Your task to perform on an android device: turn off picture-in-picture Image 0: 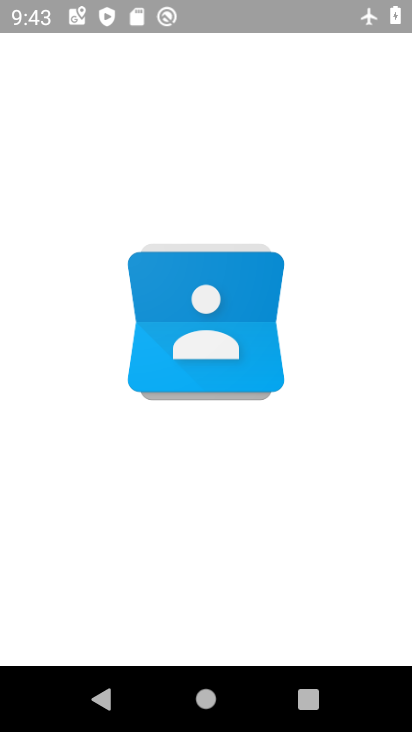
Step 0: drag from (265, 578) to (340, 96)
Your task to perform on an android device: turn off picture-in-picture Image 1: 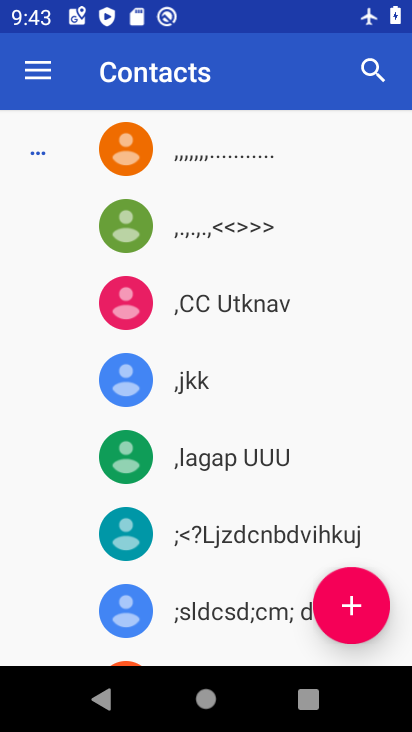
Step 1: press home button
Your task to perform on an android device: turn off picture-in-picture Image 2: 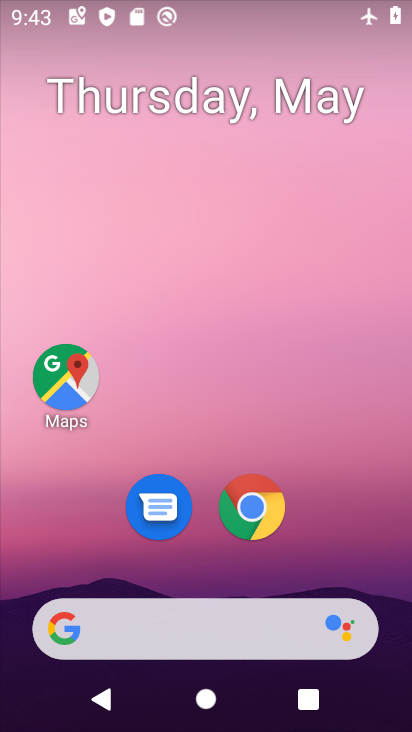
Step 2: drag from (185, 540) to (276, 83)
Your task to perform on an android device: turn off picture-in-picture Image 3: 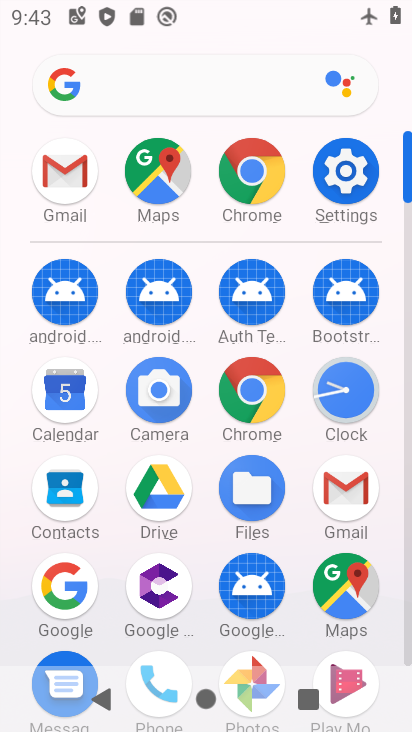
Step 3: click (352, 189)
Your task to perform on an android device: turn off picture-in-picture Image 4: 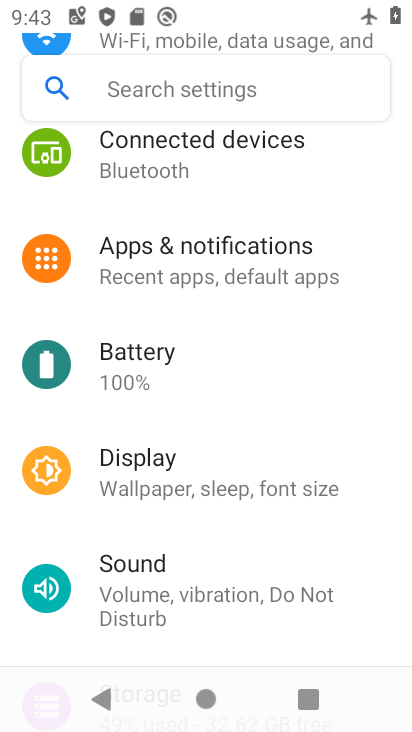
Step 4: drag from (281, 385) to (223, 687)
Your task to perform on an android device: turn off picture-in-picture Image 5: 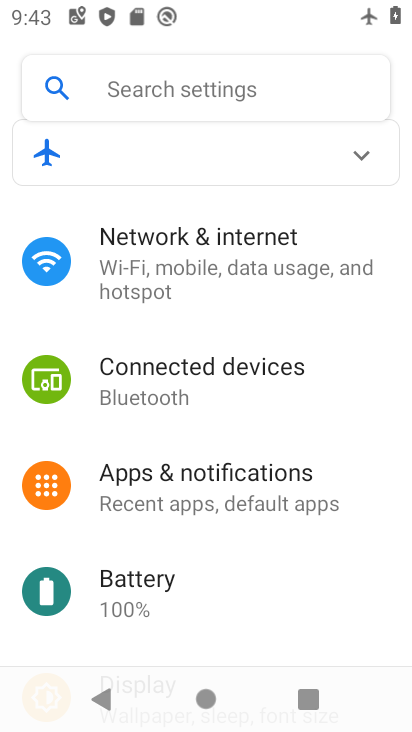
Step 5: drag from (253, 506) to (270, 252)
Your task to perform on an android device: turn off picture-in-picture Image 6: 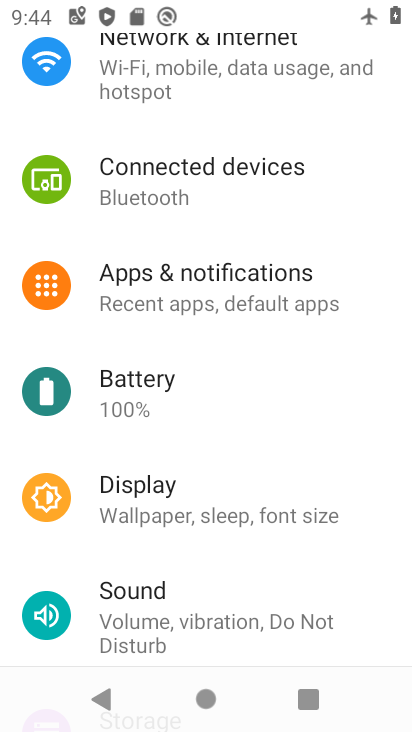
Step 6: click (294, 293)
Your task to perform on an android device: turn off picture-in-picture Image 7: 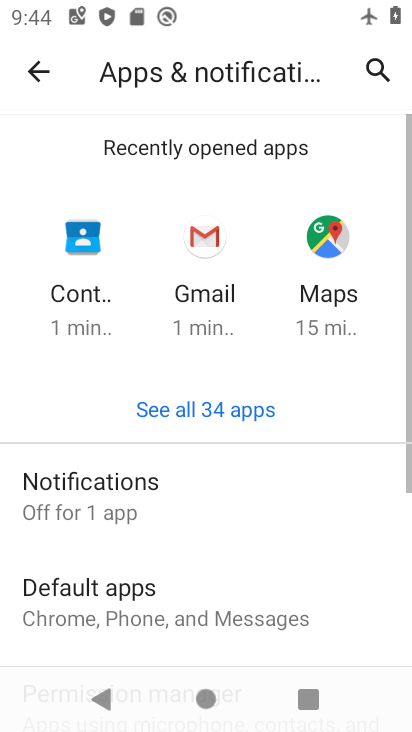
Step 7: drag from (289, 562) to (334, 122)
Your task to perform on an android device: turn off picture-in-picture Image 8: 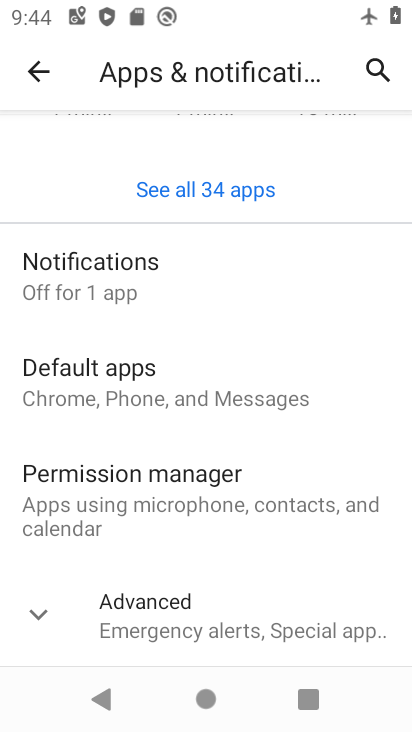
Step 8: click (241, 634)
Your task to perform on an android device: turn off picture-in-picture Image 9: 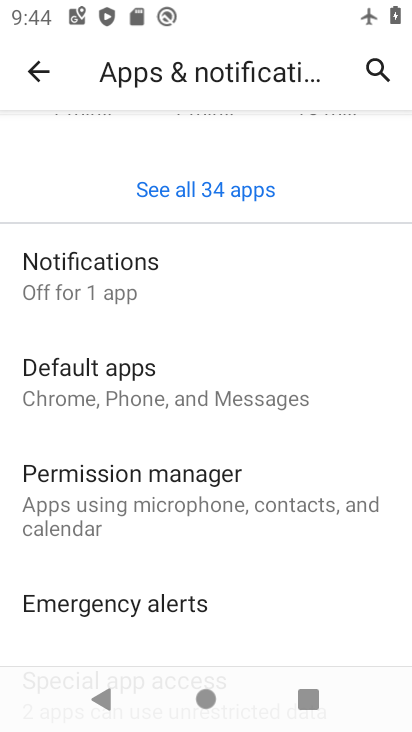
Step 9: drag from (250, 517) to (287, 111)
Your task to perform on an android device: turn off picture-in-picture Image 10: 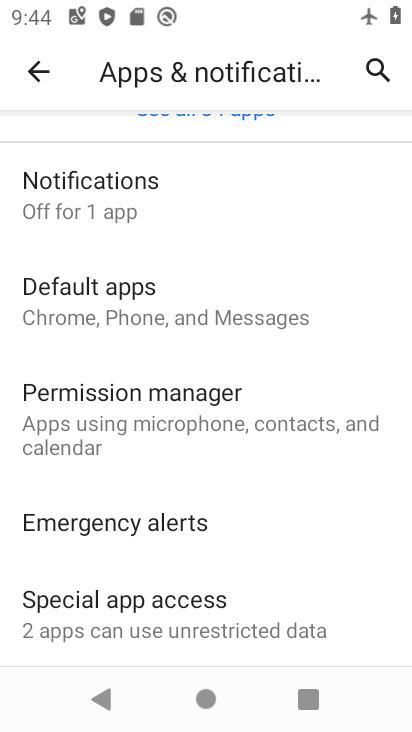
Step 10: click (264, 634)
Your task to perform on an android device: turn off picture-in-picture Image 11: 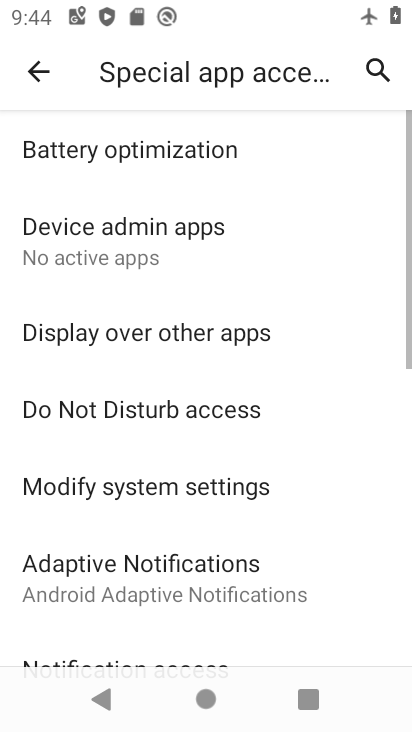
Step 11: drag from (233, 496) to (270, 200)
Your task to perform on an android device: turn off picture-in-picture Image 12: 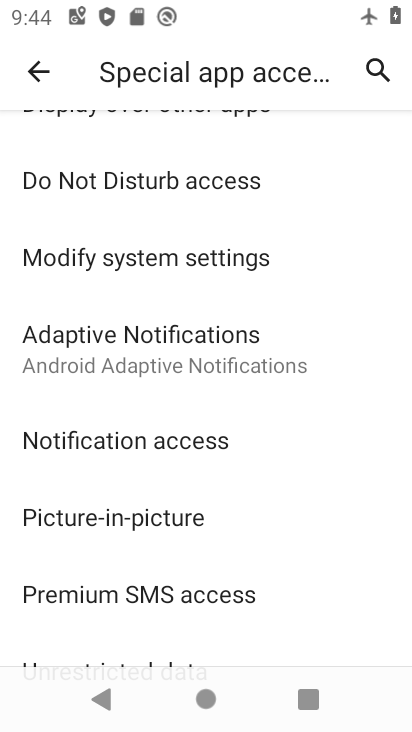
Step 12: click (192, 518)
Your task to perform on an android device: turn off picture-in-picture Image 13: 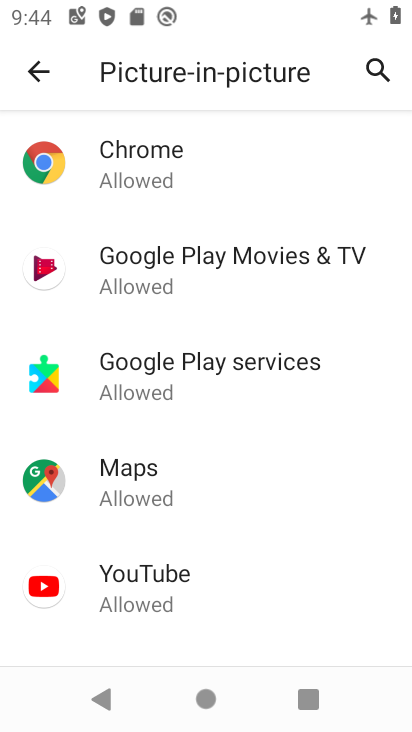
Step 13: click (296, 175)
Your task to perform on an android device: turn off picture-in-picture Image 14: 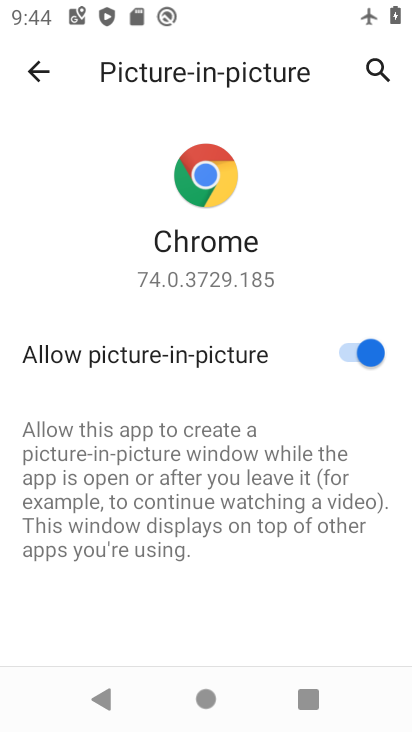
Step 14: click (343, 357)
Your task to perform on an android device: turn off picture-in-picture Image 15: 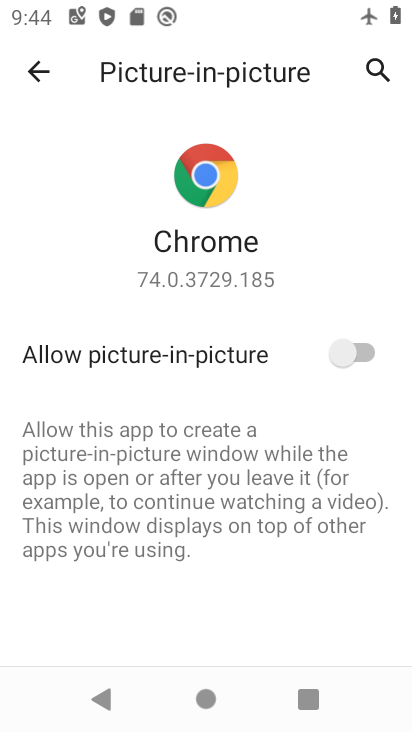
Step 15: task complete